Your task to perform on an android device: turn off data saver in the chrome app Image 0: 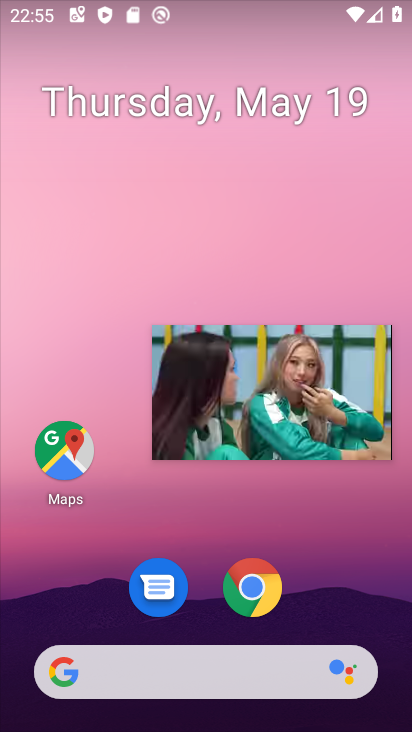
Step 0: click (387, 334)
Your task to perform on an android device: turn off data saver in the chrome app Image 1: 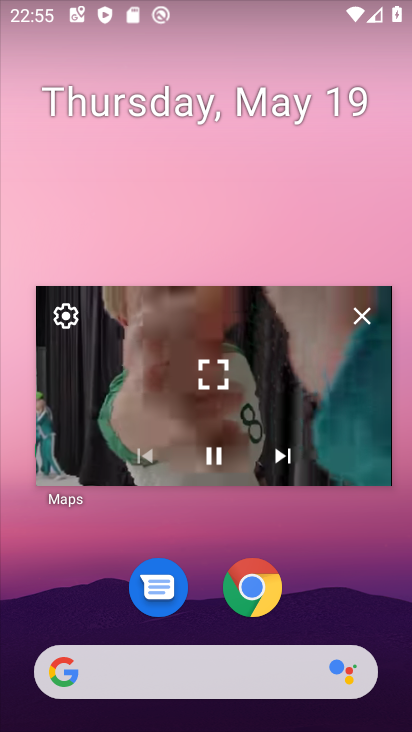
Step 1: click (359, 313)
Your task to perform on an android device: turn off data saver in the chrome app Image 2: 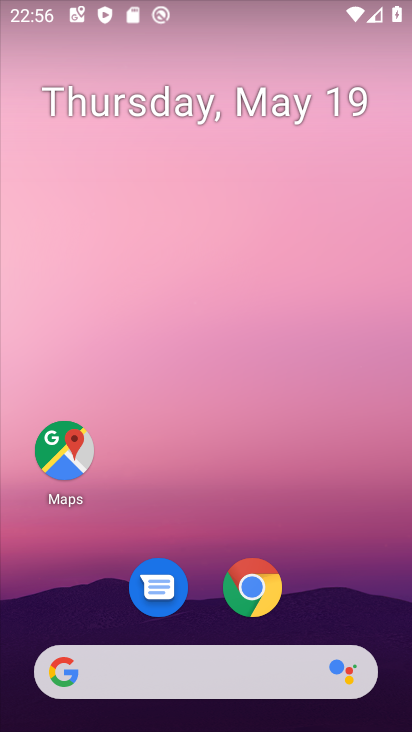
Step 2: drag from (258, 685) to (253, 198)
Your task to perform on an android device: turn off data saver in the chrome app Image 3: 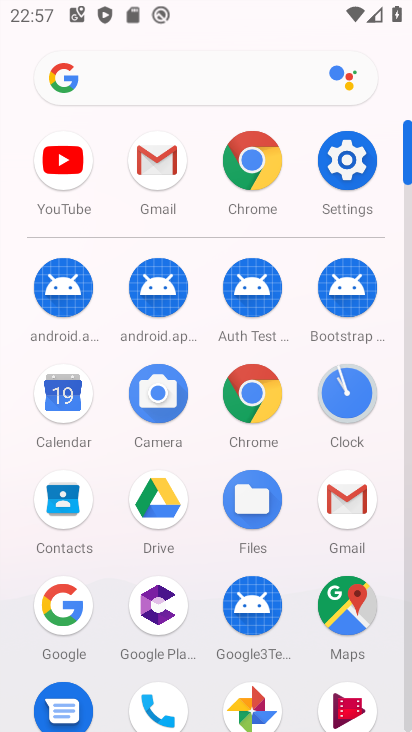
Step 3: click (234, 400)
Your task to perform on an android device: turn off data saver in the chrome app Image 4: 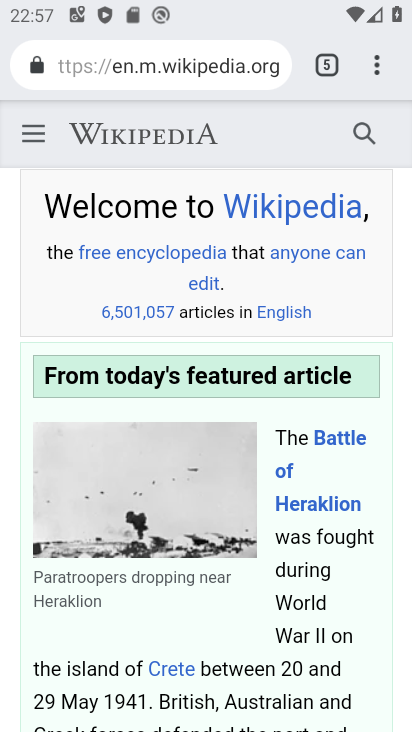
Step 4: click (377, 77)
Your task to perform on an android device: turn off data saver in the chrome app Image 5: 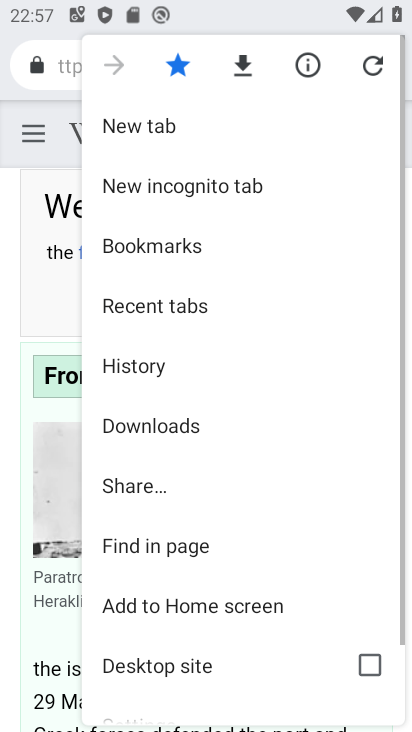
Step 5: drag from (164, 600) to (199, 466)
Your task to perform on an android device: turn off data saver in the chrome app Image 6: 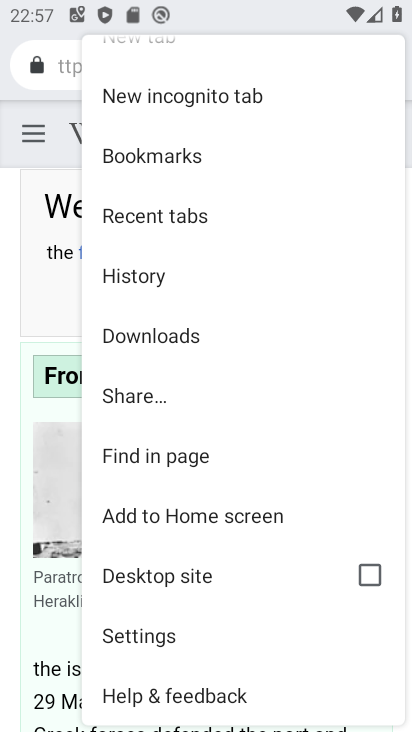
Step 6: click (139, 617)
Your task to perform on an android device: turn off data saver in the chrome app Image 7: 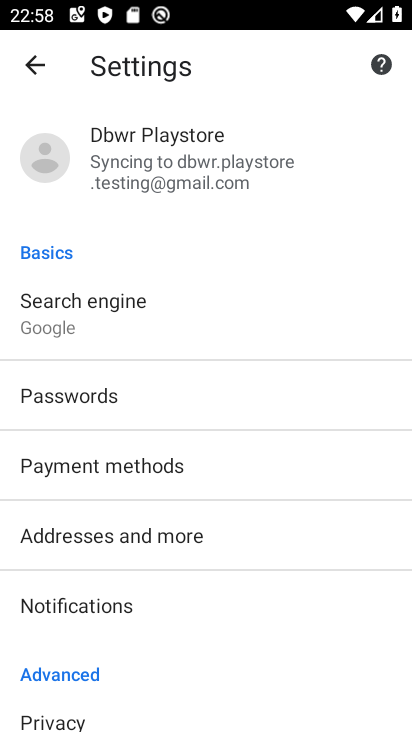
Step 7: drag from (115, 653) to (112, 169)
Your task to perform on an android device: turn off data saver in the chrome app Image 8: 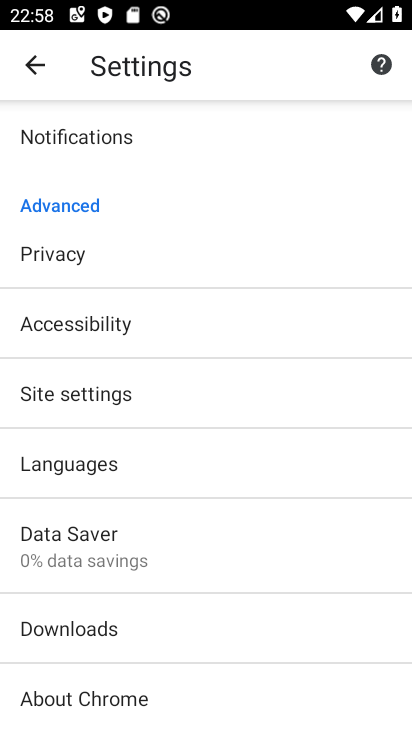
Step 8: click (83, 557)
Your task to perform on an android device: turn off data saver in the chrome app Image 9: 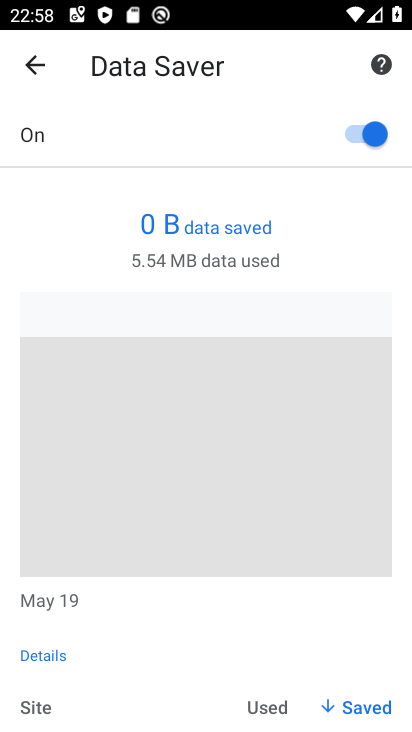
Step 9: click (352, 147)
Your task to perform on an android device: turn off data saver in the chrome app Image 10: 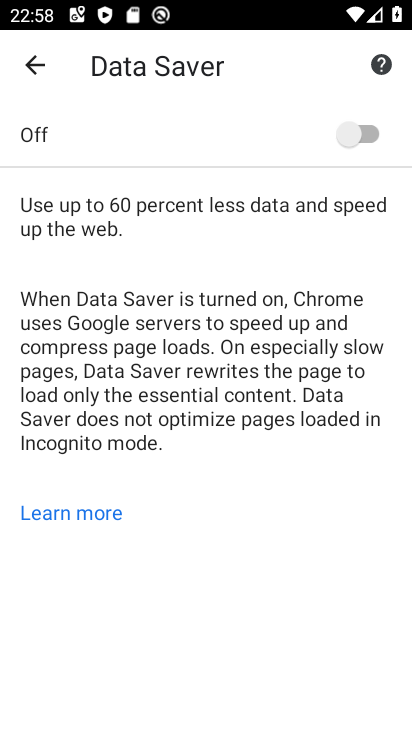
Step 10: task complete